Your task to perform on an android device: When is my next meeting? Image 0: 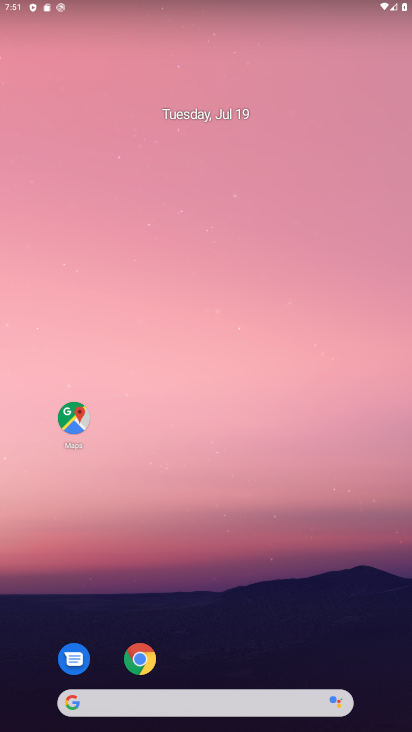
Step 0: drag from (239, 603) to (284, 112)
Your task to perform on an android device: When is my next meeting? Image 1: 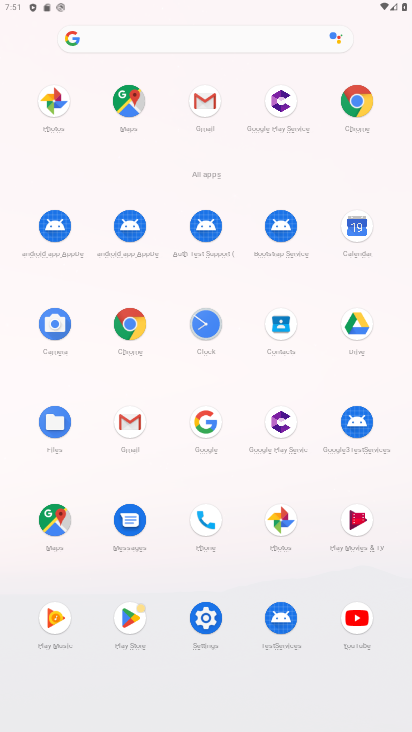
Step 1: click (349, 225)
Your task to perform on an android device: When is my next meeting? Image 2: 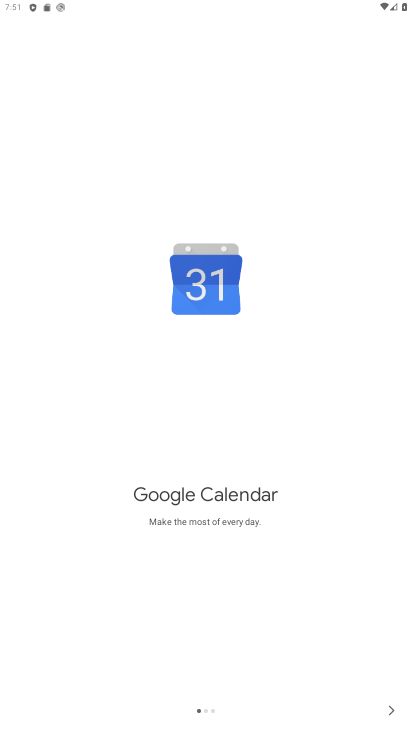
Step 2: click (388, 705)
Your task to perform on an android device: When is my next meeting? Image 3: 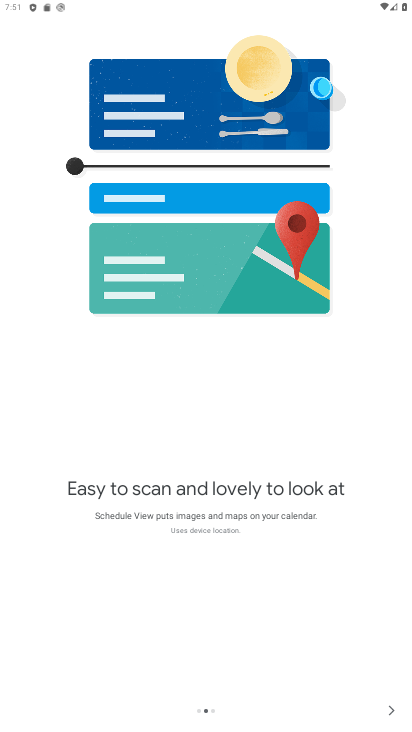
Step 3: click (388, 705)
Your task to perform on an android device: When is my next meeting? Image 4: 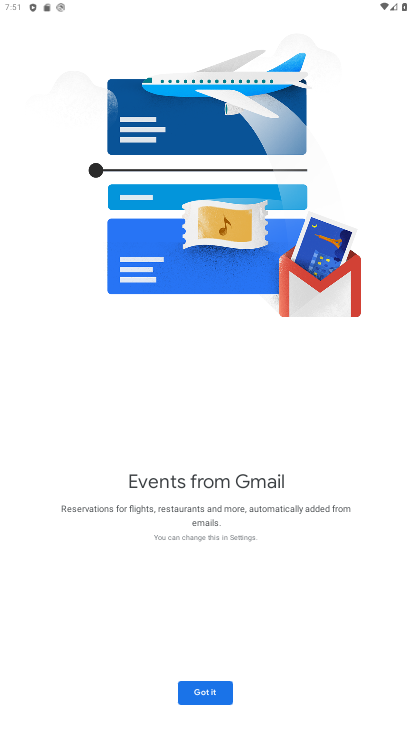
Step 4: click (218, 691)
Your task to perform on an android device: When is my next meeting? Image 5: 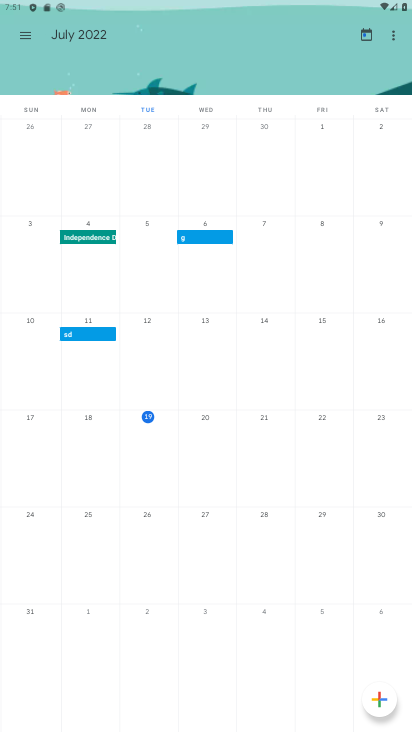
Step 5: click (199, 417)
Your task to perform on an android device: When is my next meeting? Image 6: 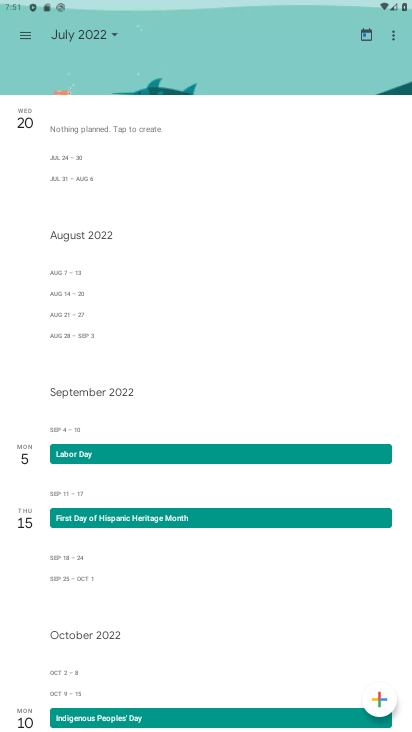
Step 6: task complete